Your task to perform on an android device: turn on javascript in the chrome app Image 0: 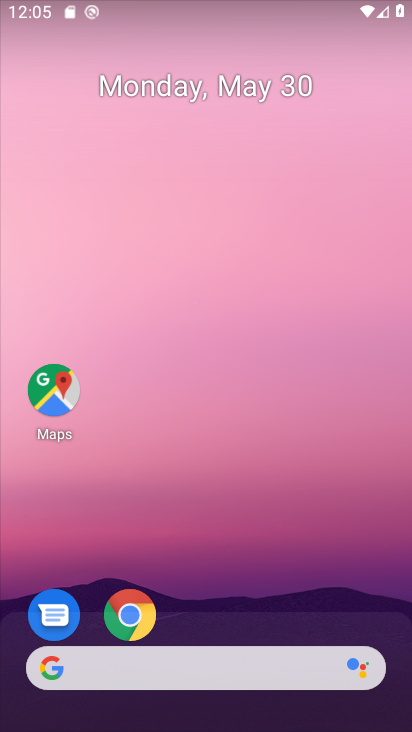
Step 0: click (137, 603)
Your task to perform on an android device: turn on javascript in the chrome app Image 1: 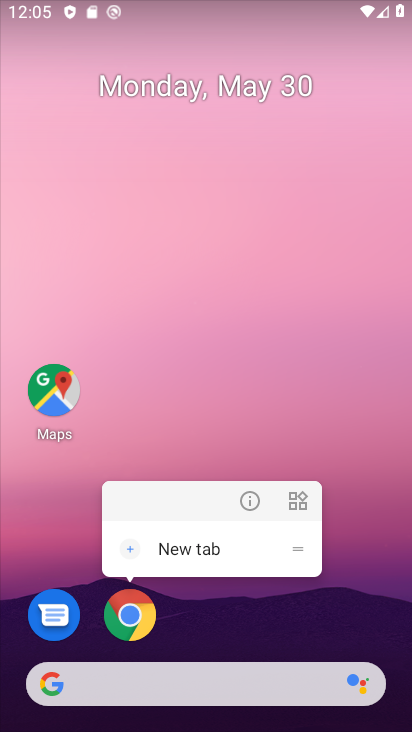
Step 1: click (135, 601)
Your task to perform on an android device: turn on javascript in the chrome app Image 2: 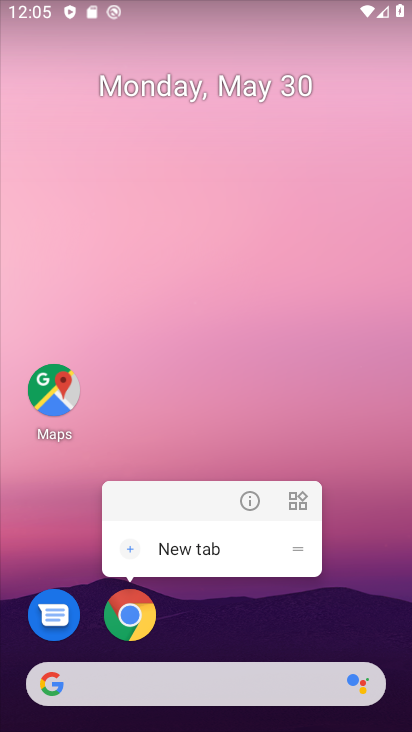
Step 2: click (127, 606)
Your task to perform on an android device: turn on javascript in the chrome app Image 3: 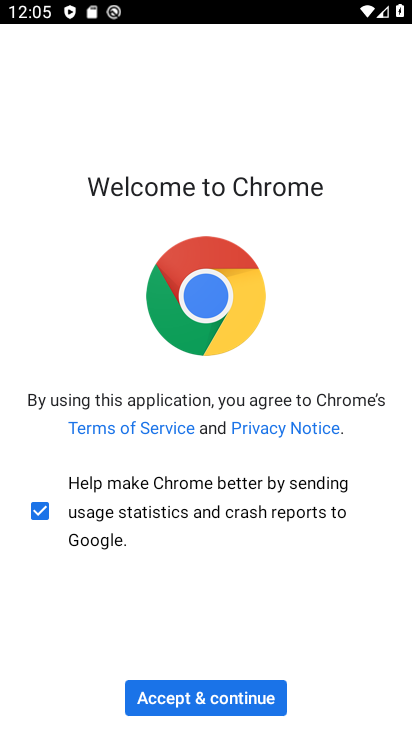
Step 3: click (211, 697)
Your task to perform on an android device: turn on javascript in the chrome app Image 4: 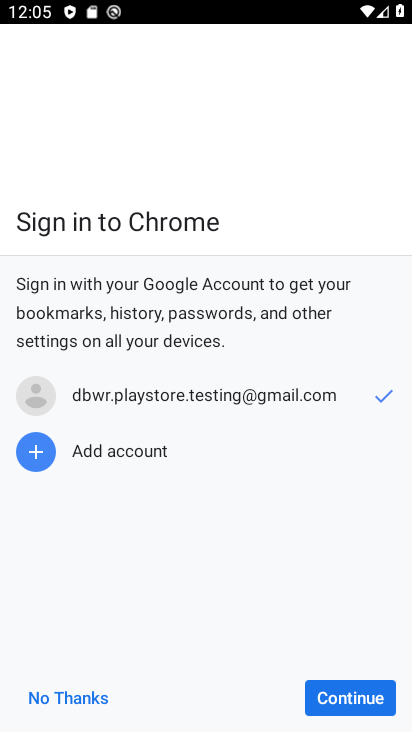
Step 4: click (369, 707)
Your task to perform on an android device: turn on javascript in the chrome app Image 5: 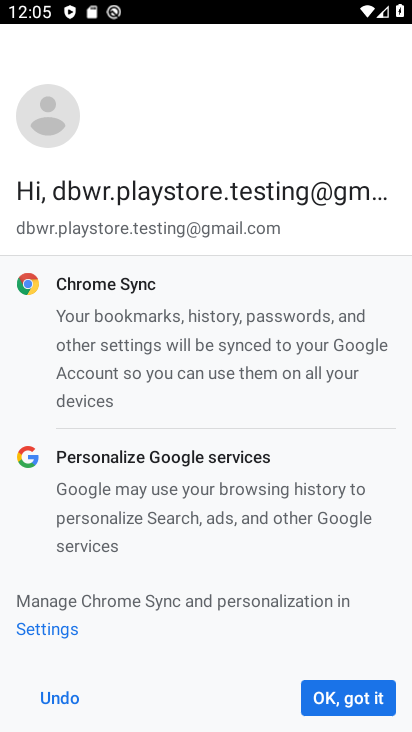
Step 5: click (361, 687)
Your task to perform on an android device: turn on javascript in the chrome app Image 6: 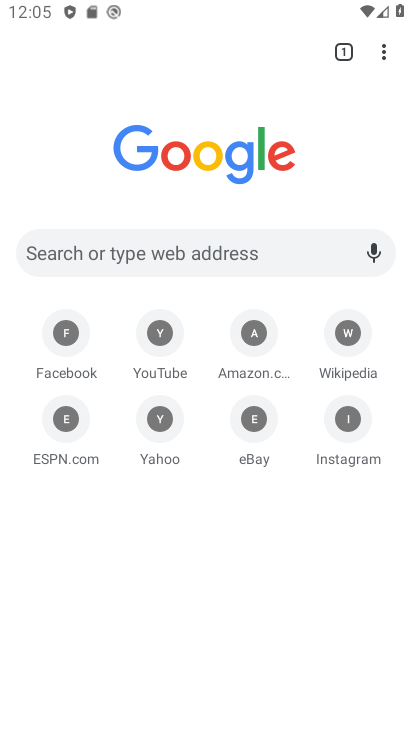
Step 6: drag from (382, 50) to (208, 436)
Your task to perform on an android device: turn on javascript in the chrome app Image 7: 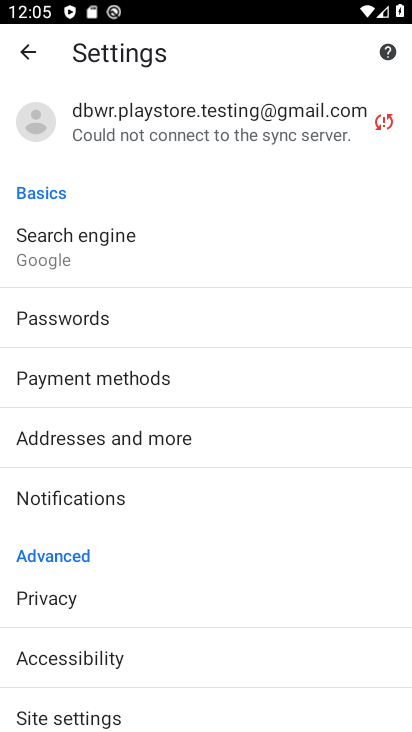
Step 7: click (81, 721)
Your task to perform on an android device: turn on javascript in the chrome app Image 8: 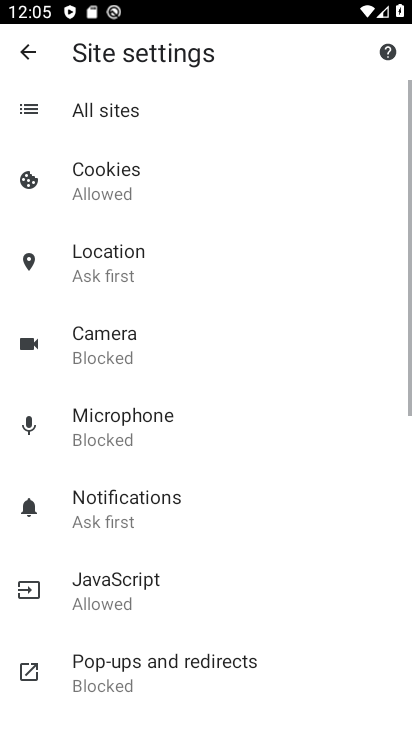
Step 8: click (105, 575)
Your task to perform on an android device: turn on javascript in the chrome app Image 9: 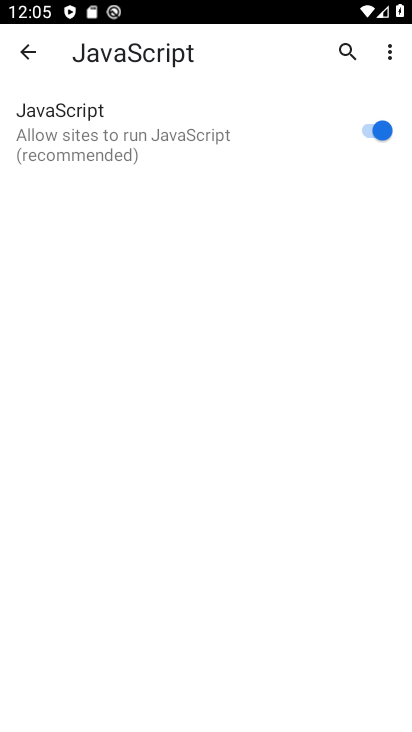
Step 9: task complete